Your task to perform on an android device: toggle javascript in the chrome app Image 0: 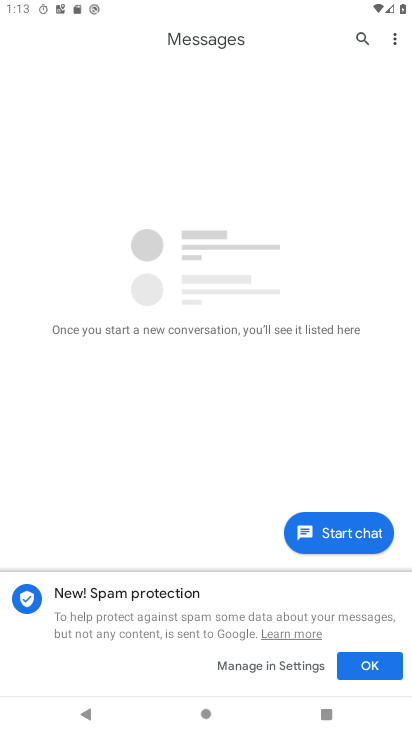
Step 0: press home button
Your task to perform on an android device: toggle javascript in the chrome app Image 1: 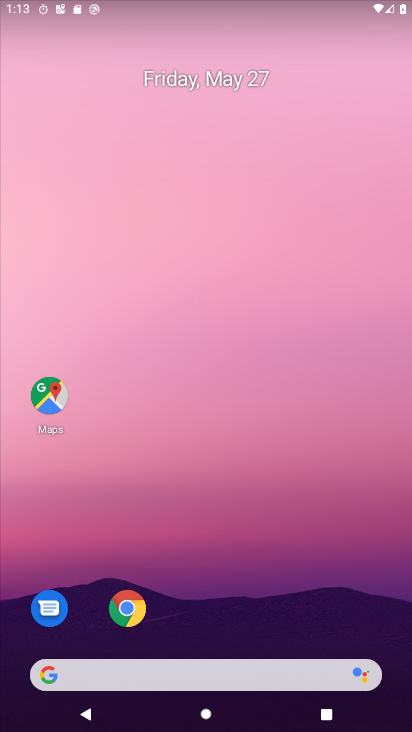
Step 1: click (124, 601)
Your task to perform on an android device: toggle javascript in the chrome app Image 2: 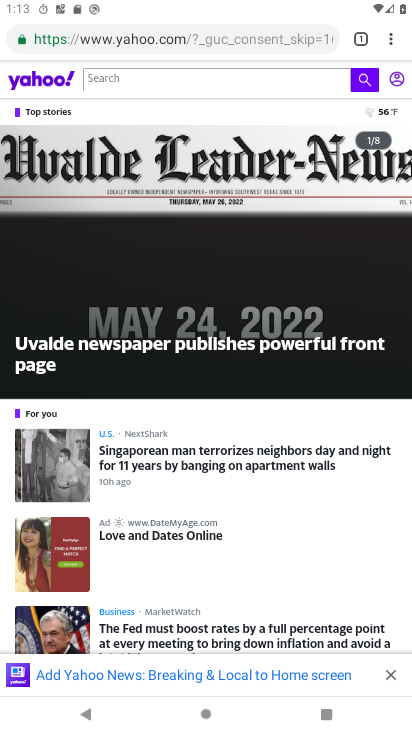
Step 2: click (391, 37)
Your task to perform on an android device: toggle javascript in the chrome app Image 3: 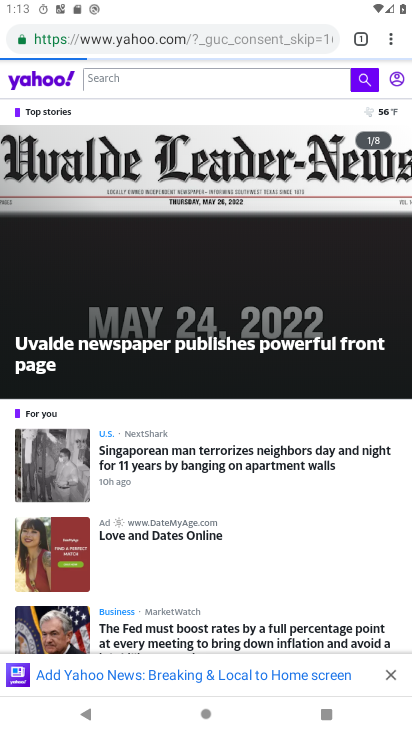
Step 3: click (392, 38)
Your task to perform on an android device: toggle javascript in the chrome app Image 4: 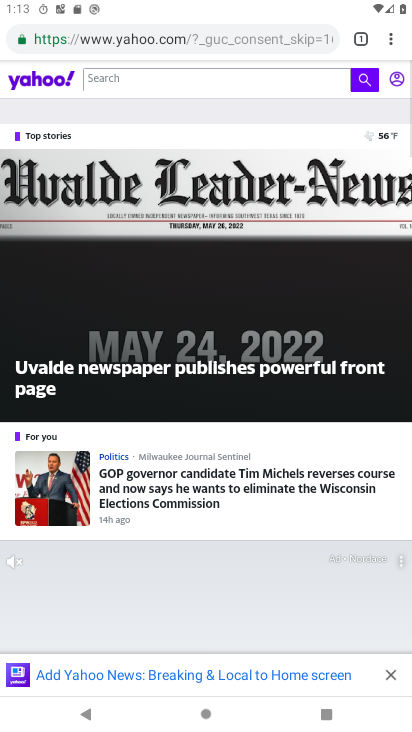
Step 4: click (392, 38)
Your task to perform on an android device: toggle javascript in the chrome app Image 5: 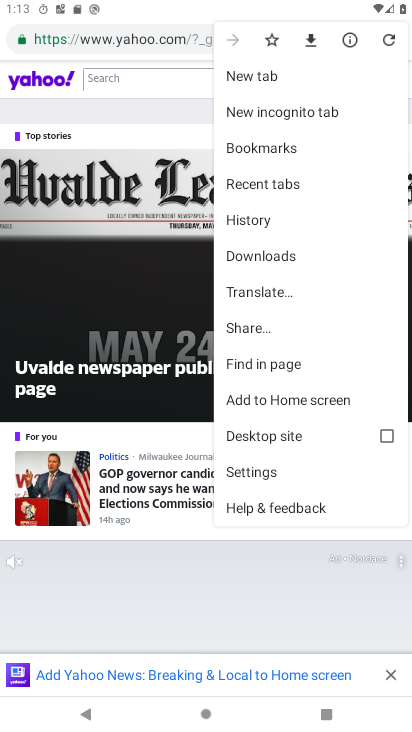
Step 5: click (272, 472)
Your task to perform on an android device: toggle javascript in the chrome app Image 6: 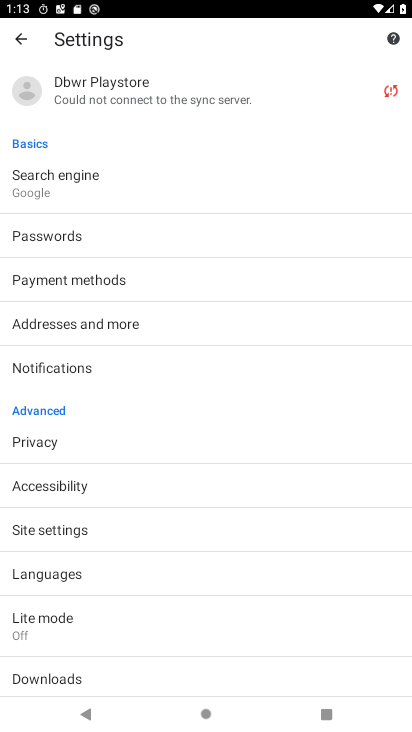
Step 6: click (43, 528)
Your task to perform on an android device: toggle javascript in the chrome app Image 7: 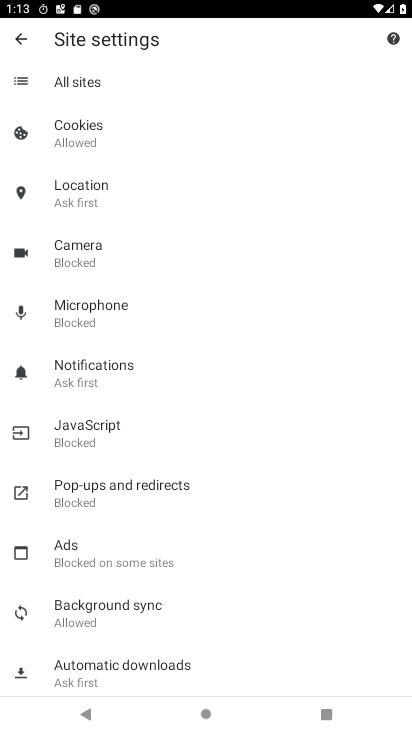
Step 7: click (78, 437)
Your task to perform on an android device: toggle javascript in the chrome app Image 8: 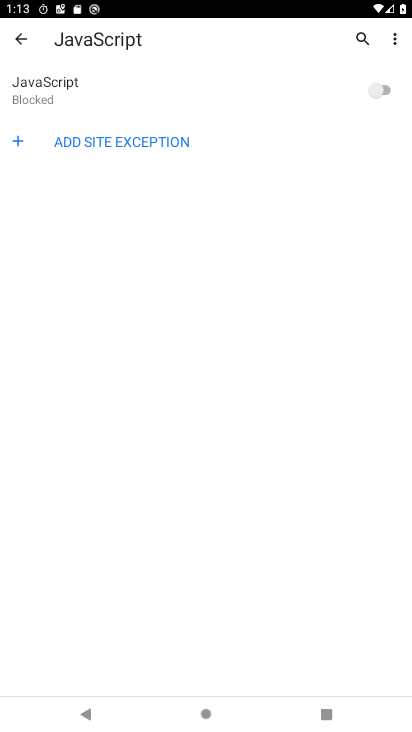
Step 8: click (385, 90)
Your task to perform on an android device: toggle javascript in the chrome app Image 9: 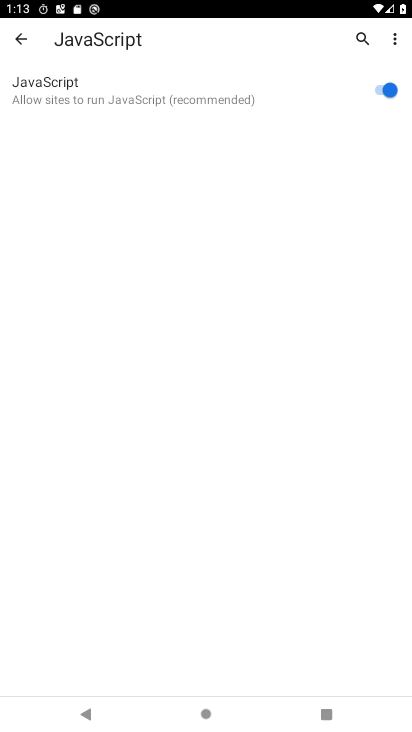
Step 9: task complete